Your task to perform on an android device: Open eBay Image 0: 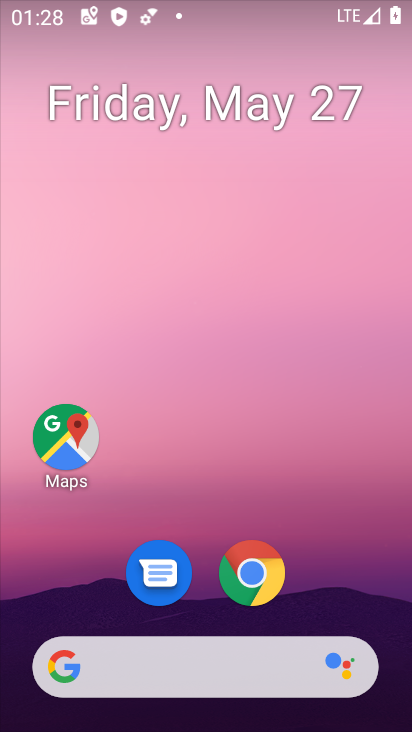
Step 0: drag from (193, 619) to (171, 143)
Your task to perform on an android device: Open eBay Image 1: 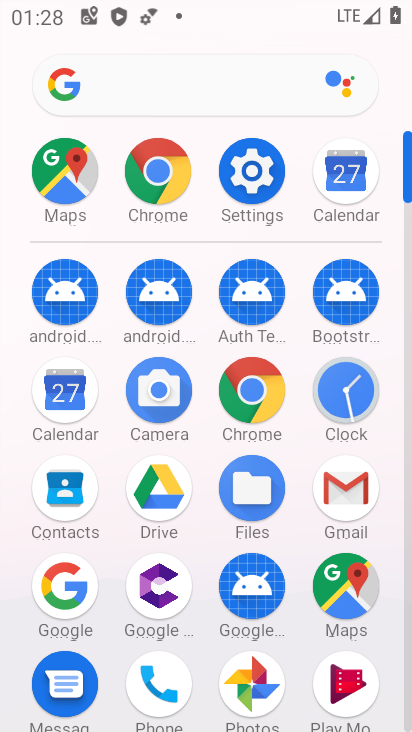
Step 1: click (179, 186)
Your task to perform on an android device: Open eBay Image 2: 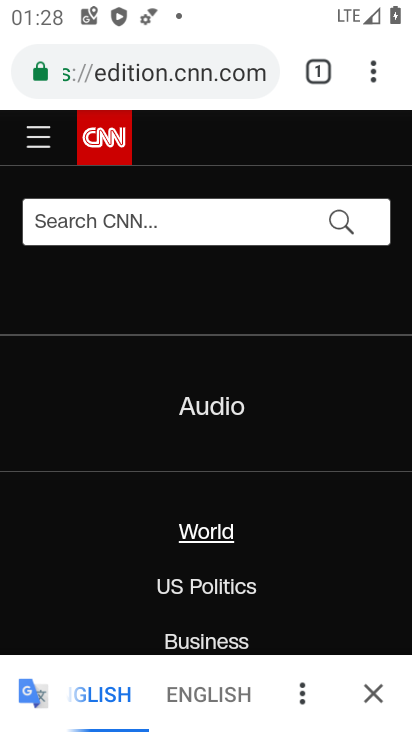
Step 2: click (306, 79)
Your task to perform on an android device: Open eBay Image 3: 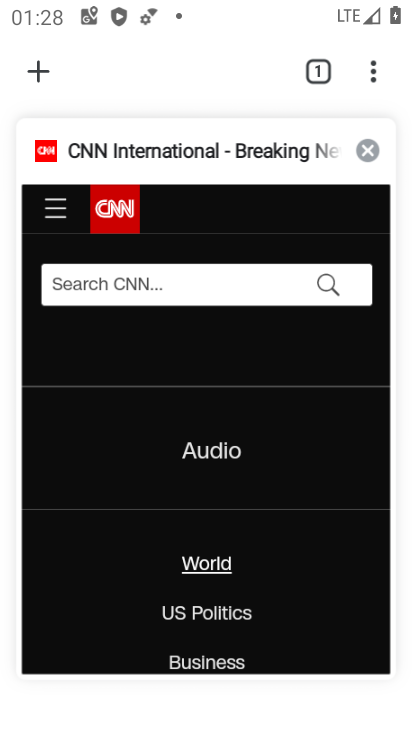
Step 3: click (33, 68)
Your task to perform on an android device: Open eBay Image 4: 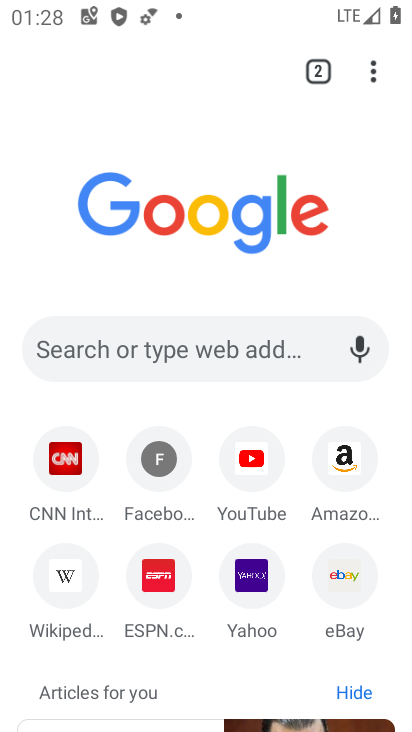
Step 4: click (339, 578)
Your task to perform on an android device: Open eBay Image 5: 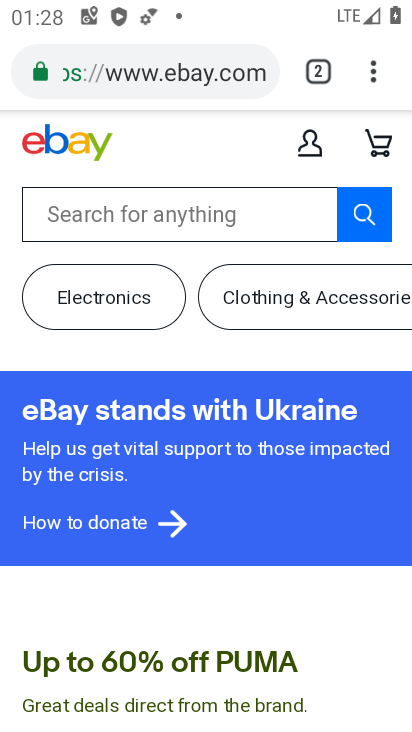
Step 5: task complete